Your task to perform on an android device: search for starred emails in the gmail app Image 0: 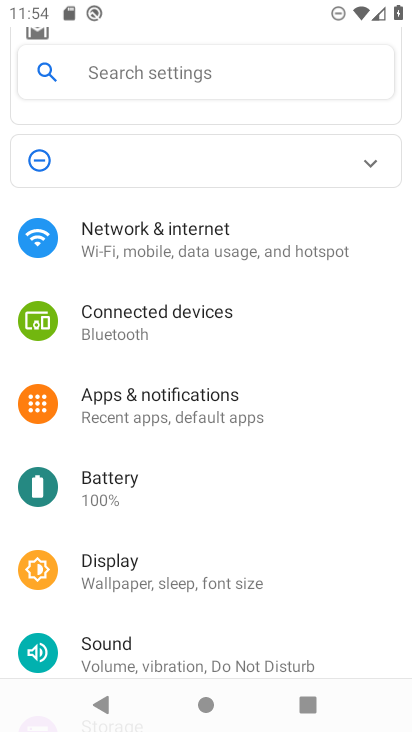
Step 0: press home button
Your task to perform on an android device: search for starred emails in the gmail app Image 1: 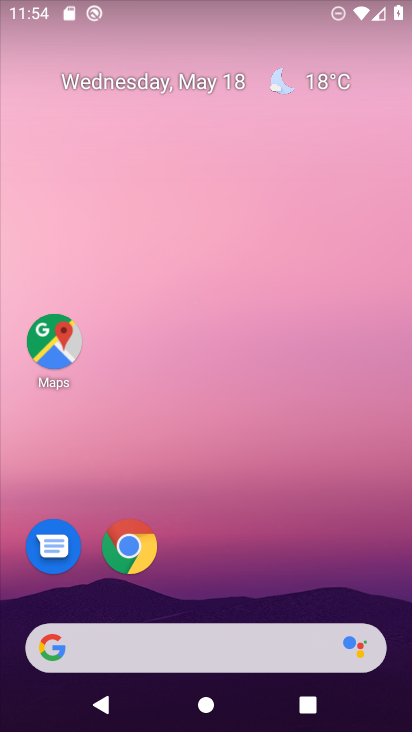
Step 1: drag from (238, 719) to (250, 169)
Your task to perform on an android device: search for starred emails in the gmail app Image 2: 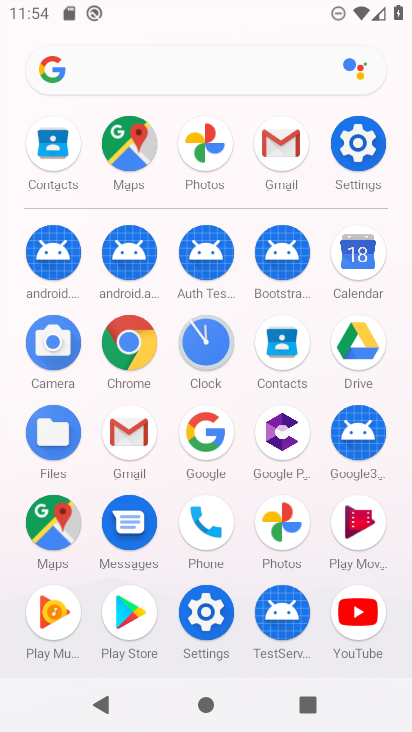
Step 2: click (129, 436)
Your task to perform on an android device: search for starred emails in the gmail app Image 3: 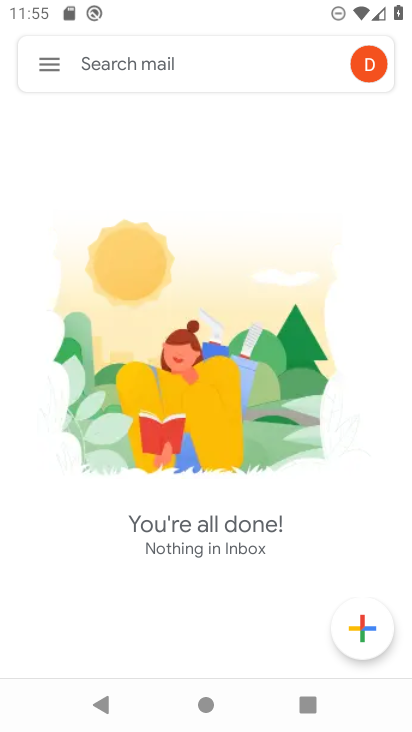
Step 3: click (44, 66)
Your task to perform on an android device: search for starred emails in the gmail app Image 4: 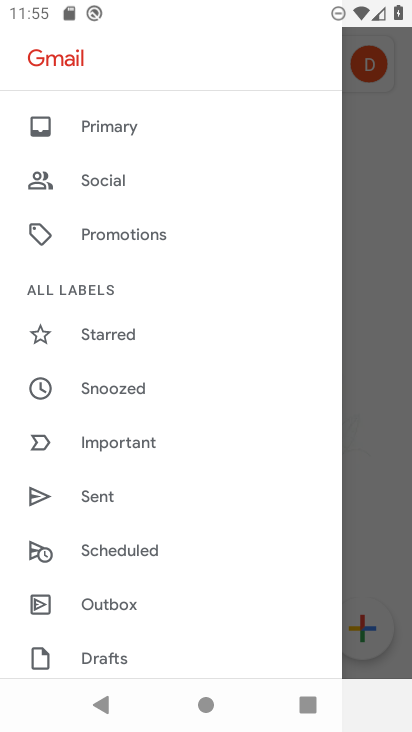
Step 4: click (110, 334)
Your task to perform on an android device: search for starred emails in the gmail app Image 5: 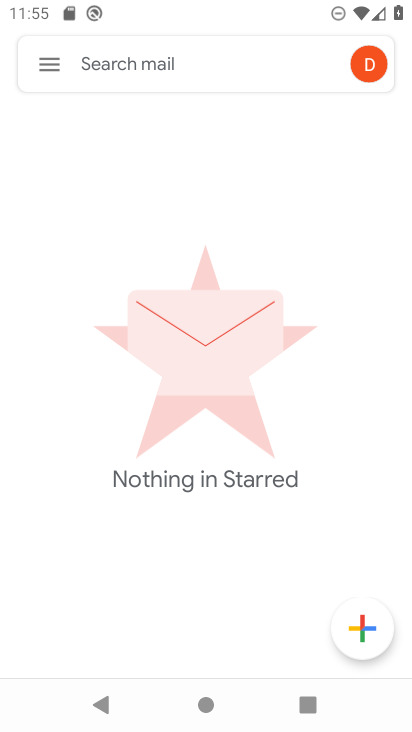
Step 5: task complete